Your task to perform on an android device: Go to Google maps Image 0: 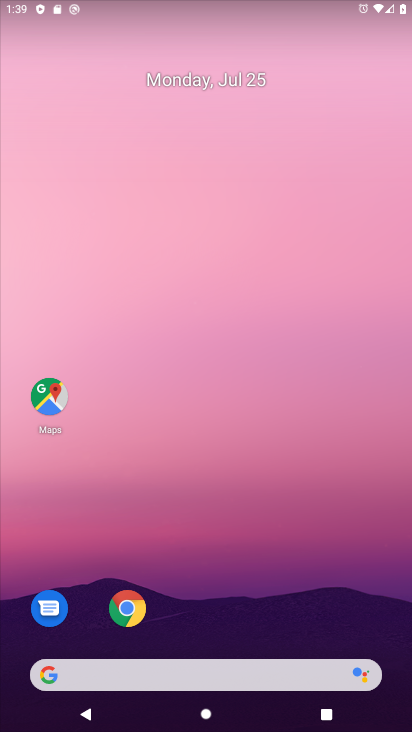
Step 0: drag from (323, 518) to (325, 3)
Your task to perform on an android device: Go to Google maps Image 1: 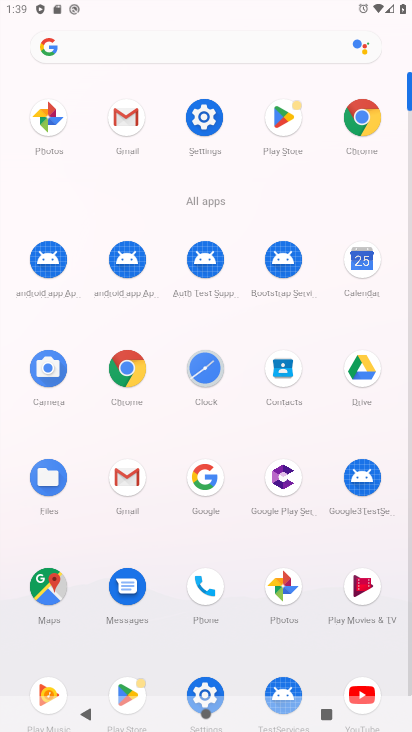
Step 1: click (49, 582)
Your task to perform on an android device: Go to Google maps Image 2: 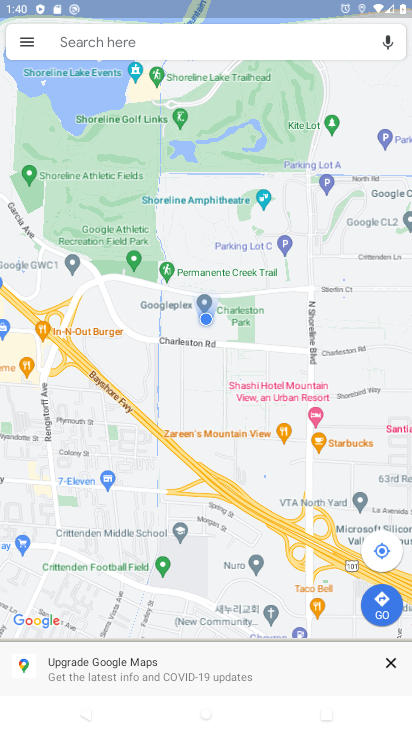
Step 2: task complete